Your task to perform on an android device: Is it going to rain this weekend? Image 0: 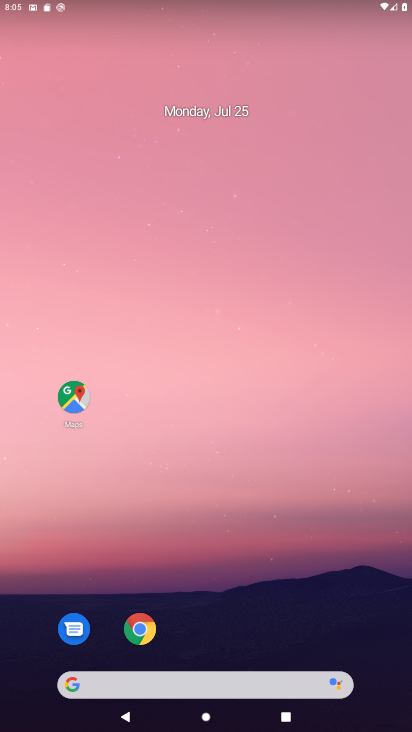
Step 0: click (141, 630)
Your task to perform on an android device: Is it going to rain this weekend? Image 1: 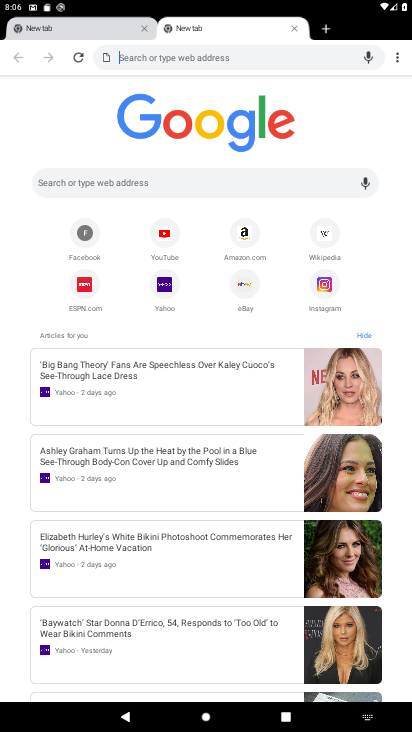
Step 1: click (219, 62)
Your task to perform on an android device: Is it going to rain this weekend? Image 2: 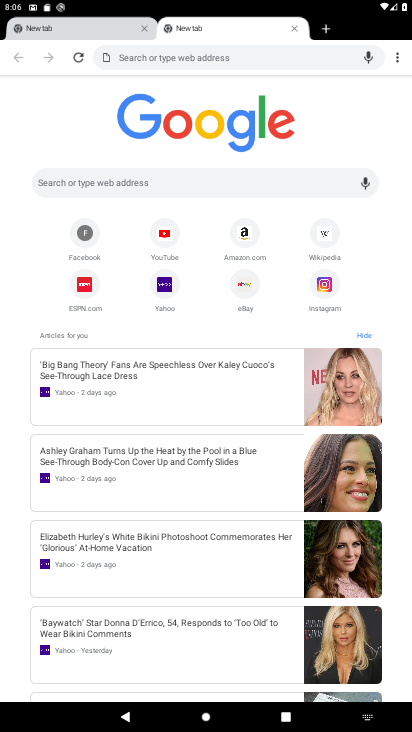
Step 2: type "Is it going to rain this weekend?"
Your task to perform on an android device: Is it going to rain this weekend? Image 3: 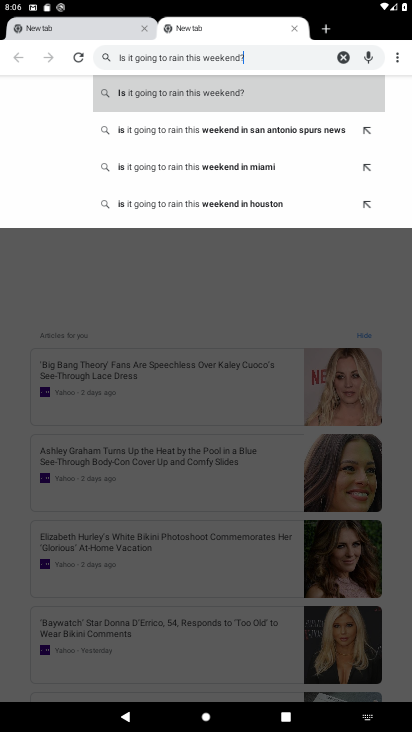
Step 3: click (190, 94)
Your task to perform on an android device: Is it going to rain this weekend? Image 4: 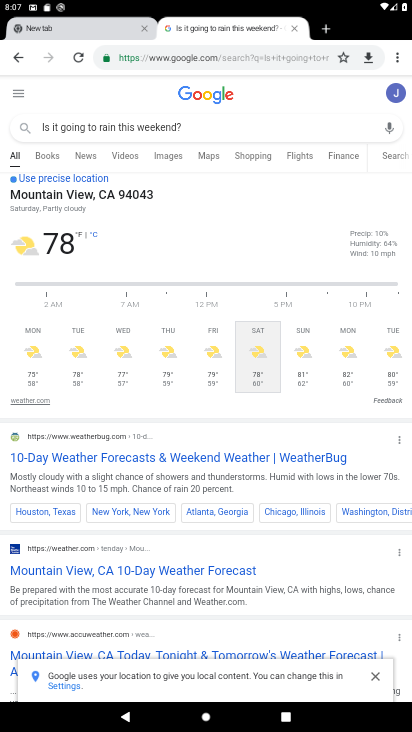
Step 4: task complete